Your task to perform on an android device: find snoozed emails in the gmail app Image 0: 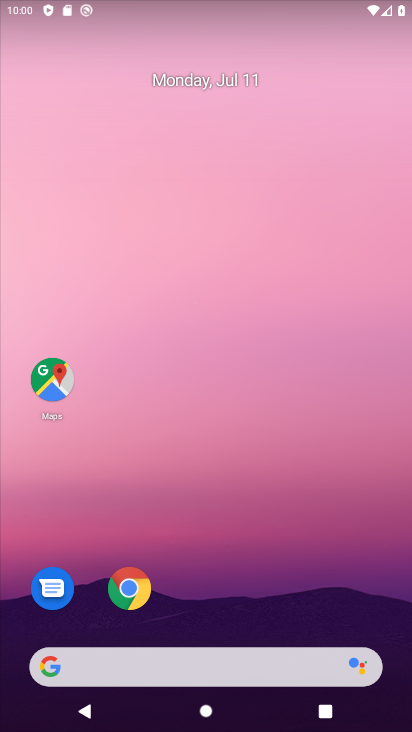
Step 0: drag from (194, 630) to (233, 207)
Your task to perform on an android device: find snoozed emails in the gmail app Image 1: 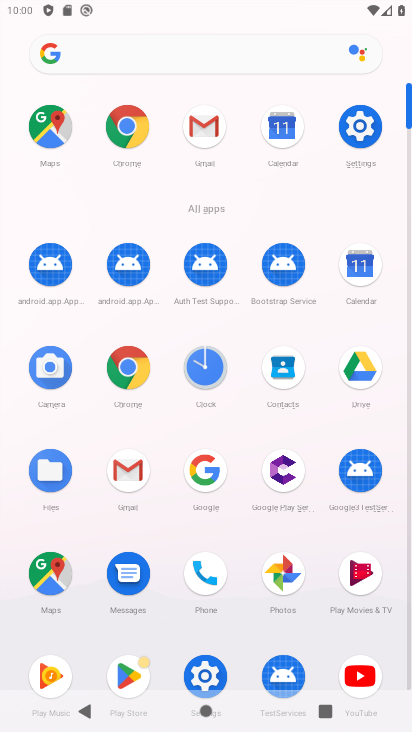
Step 1: click (135, 480)
Your task to perform on an android device: find snoozed emails in the gmail app Image 2: 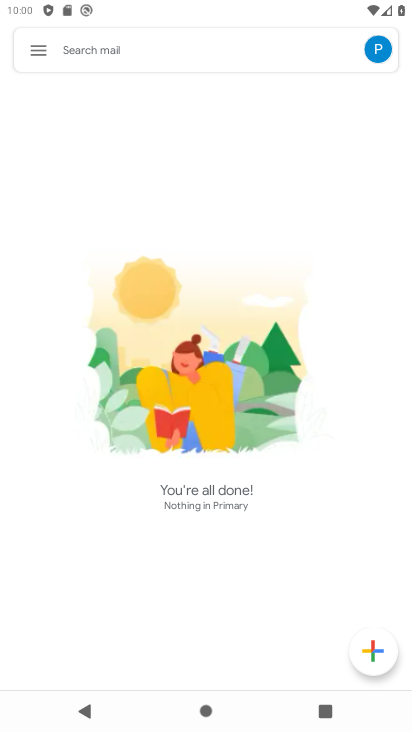
Step 2: click (44, 42)
Your task to perform on an android device: find snoozed emails in the gmail app Image 3: 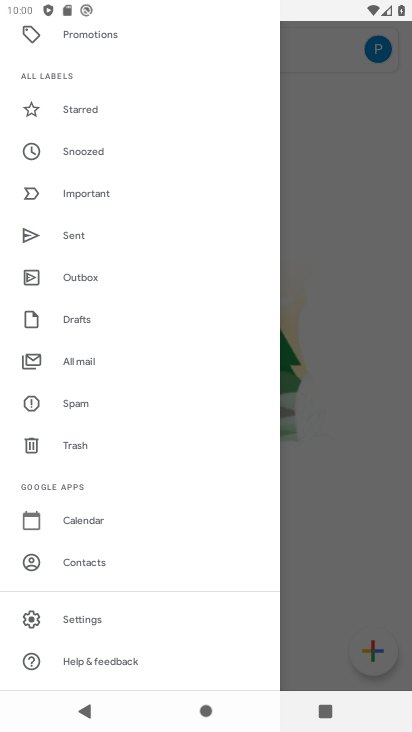
Step 3: click (92, 148)
Your task to perform on an android device: find snoozed emails in the gmail app Image 4: 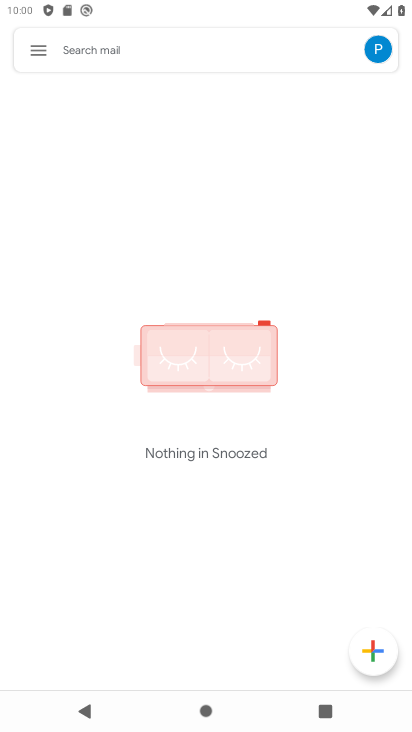
Step 4: task complete